Your task to perform on an android device: Open Amazon Image 0: 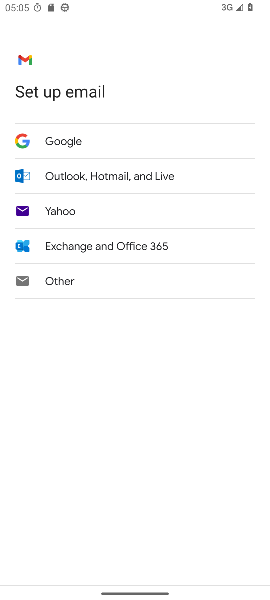
Step 0: press home button
Your task to perform on an android device: Open Amazon Image 1: 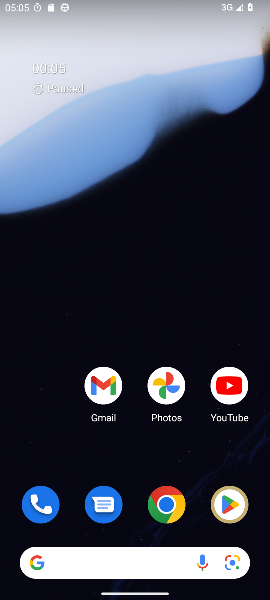
Step 1: click (86, 563)
Your task to perform on an android device: Open Amazon Image 2: 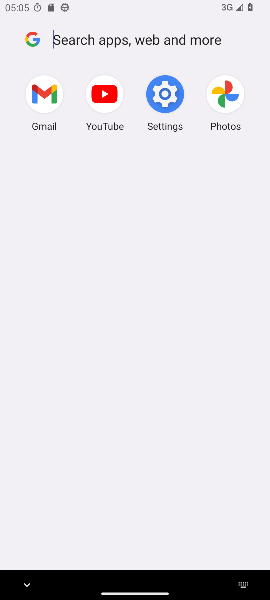
Step 2: type "Amazon"
Your task to perform on an android device: Open Amazon Image 3: 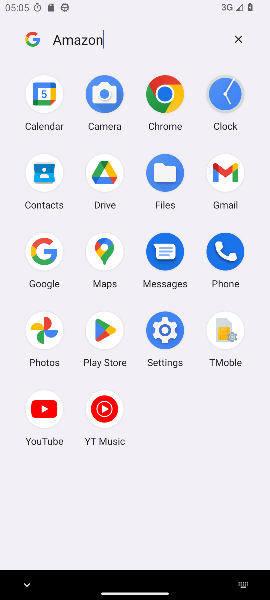
Step 3: type ""
Your task to perform on an android device: Open Amazon Image 4: 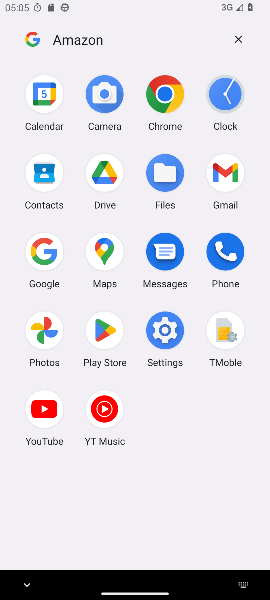
Step 4: click (119, 38)
Your task to perform on an android device: Open Amazon Image 5: 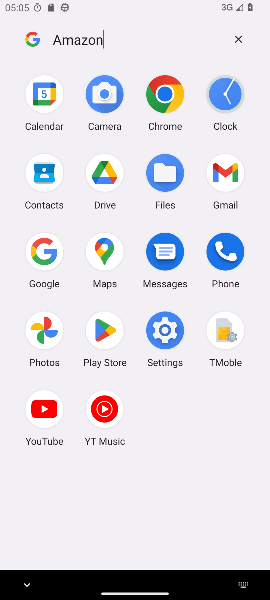
Step 5: task complete